Your task to perform on an android device: Search for Italian restaurants on Maps Image 0: 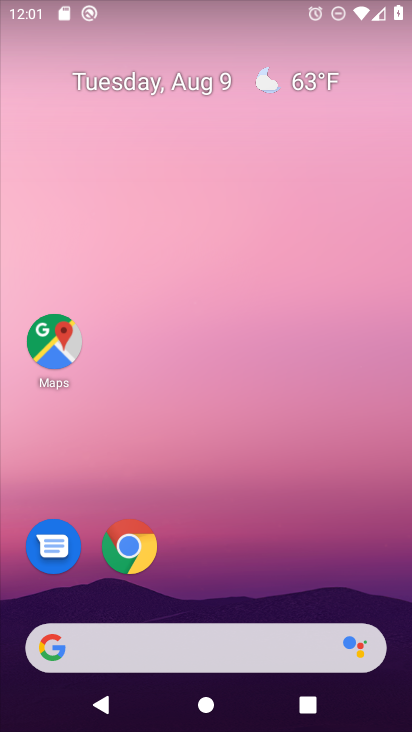
Step 0: press home button
Your task to perform on an android device: Search for Italian restaurants on Maps Image 1: 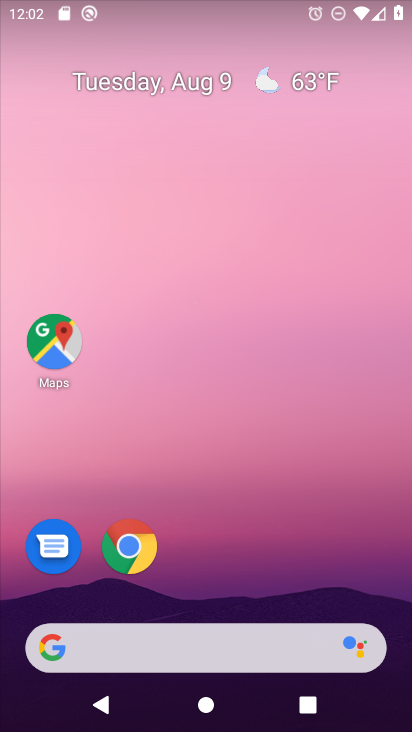
Step 1: drag from (225, 596) to (268, 78)
Your task to perform on an android device: Search for Italian restaurants on Maps Image 2: 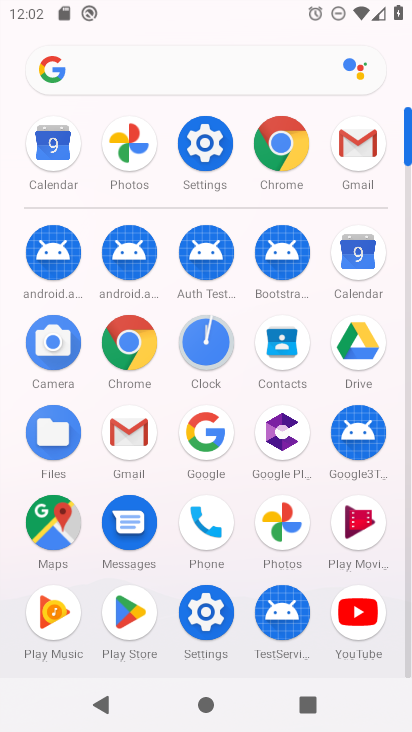
Step 2: click (51, 519)
Your task to perform on an android device: Search for Italian restaurants on Maps Image 3: 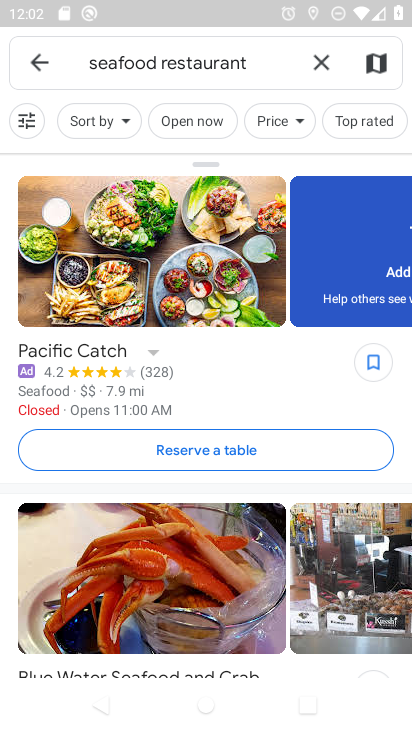
Step 3: click (316, 71)
Your task to perform on an android device: Search for Italian restaurants on Maps Image 4: 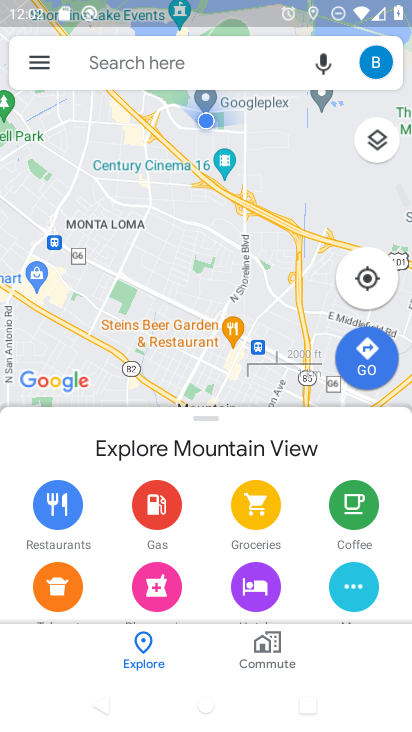
Step 4: click (153, 56)
Your task to perform on an android device: Search for Italian restaurants on Maps Image 5: 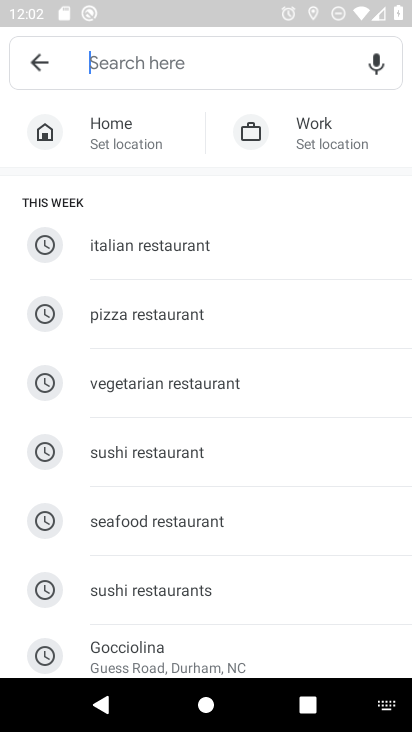
Step 5: click (136, 244)
Your task to perform on an android device: Search for Italian restaurants on Maps Image 6: 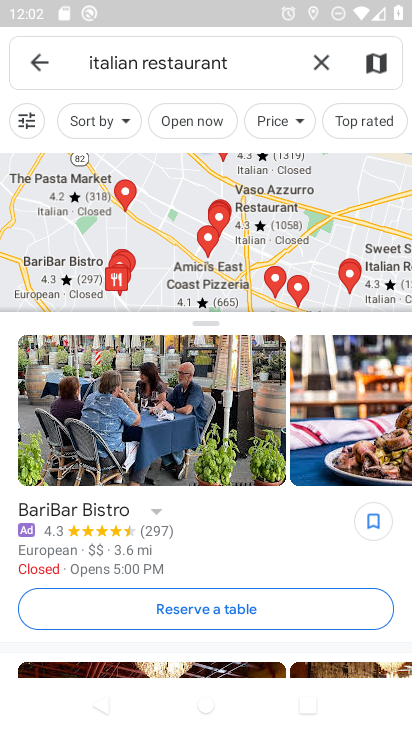
Step 6: task complete